Your task to perform on an android device: Search for "alienware area 51" on target, select the first entry, and add it to the cart. Image 0: 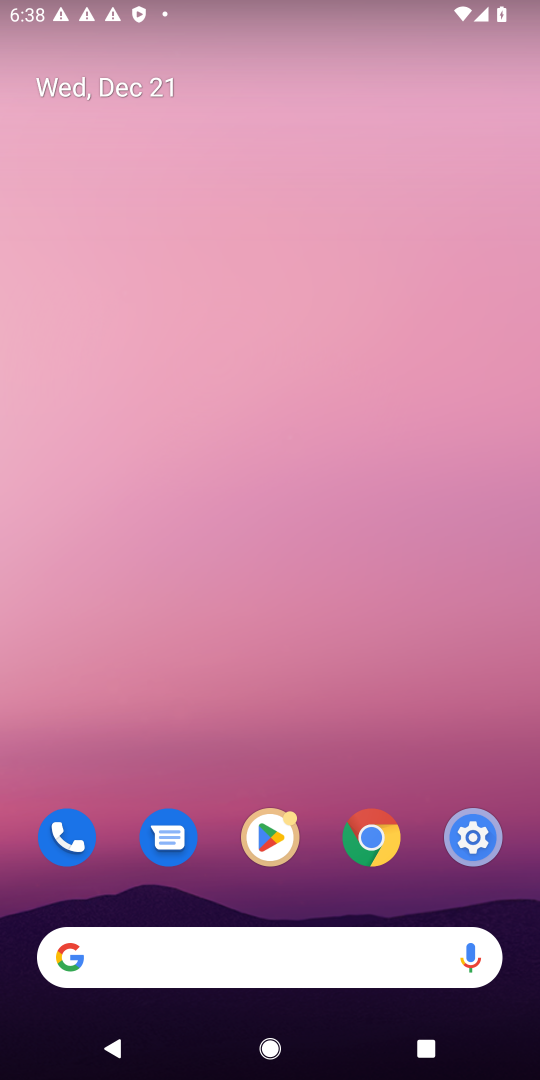
Step 0: drag from (156, 939) to (229, 361)
Your task to perform on an android device: Search for "alienware area 51" on target, select the first entry, and add it to the cart. Image 1: 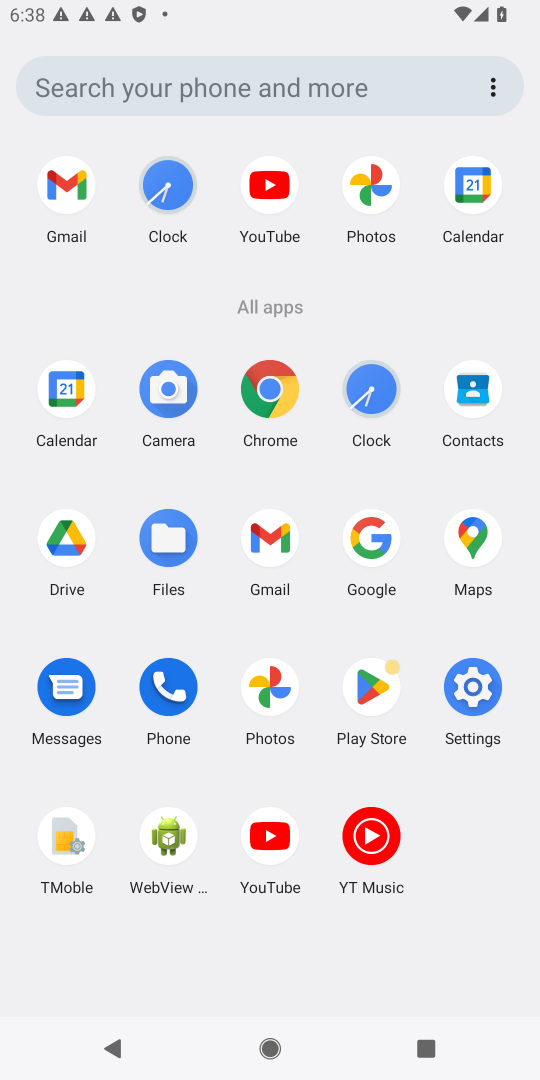
Step 1: click (371, 555)
Your task to perform on an android device: Search for "alienware area 51" on target, select the first entry, and add it to the cart. Image 2: 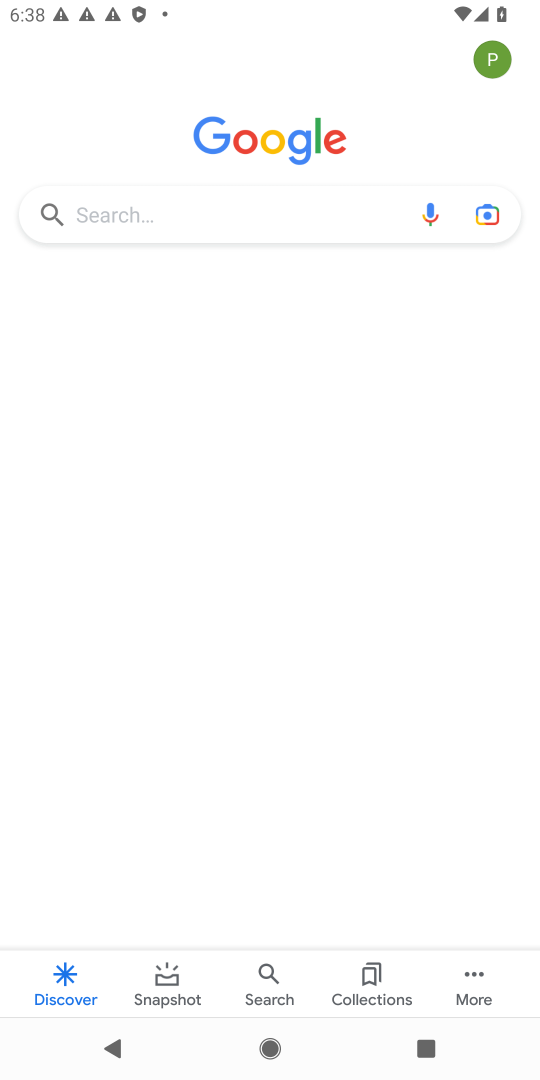
Step 2: click (151, 199)
Your task to perform on an android device: Search for "alienware area 51" on target, select the first entry, and add it to the cart. Image 3: 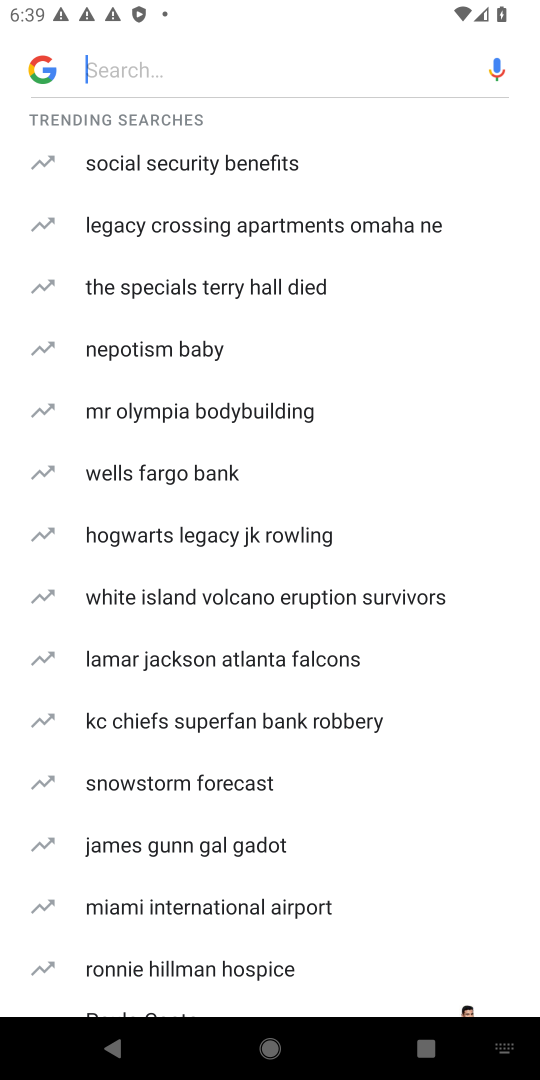
Step 3: type "target"
Your task to perform on an android device: Search for "alienware area 51" on target, select the first entry, and add it to the cart. Image 4: 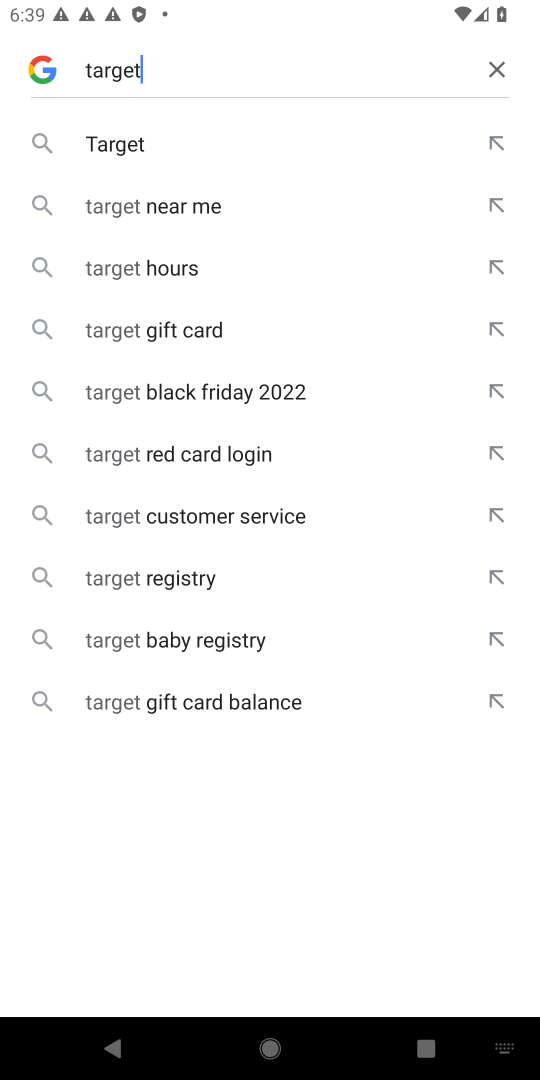
Step 4: click (114, 150)
Your task to perform on an android device: Search for "alienware area 51" on target, select the first entry, and add it to the cart. Image 5: 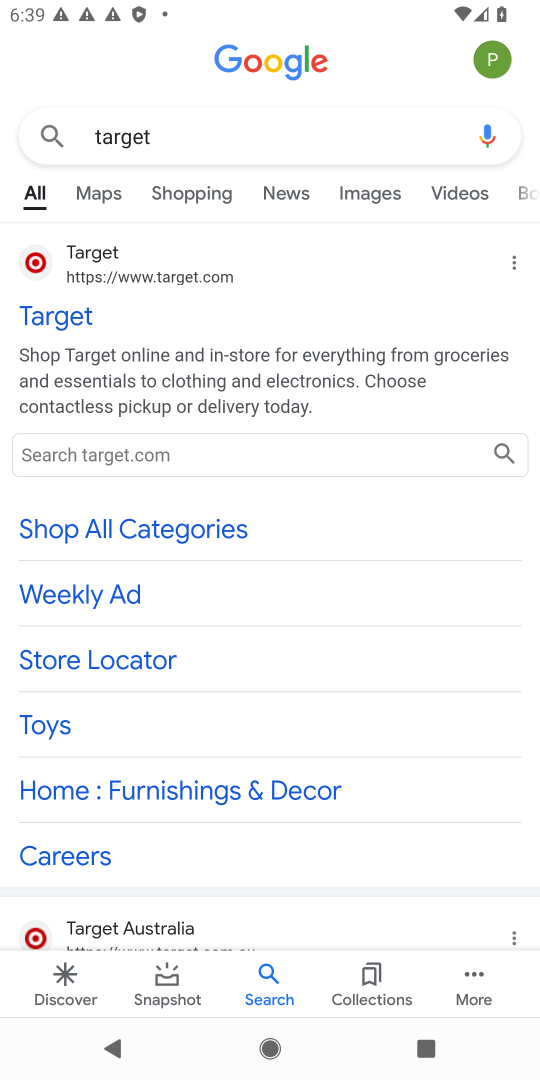
Step 5: click (42, 311)
Your task to perform on an android device: Search for "alienware area 51" on target, select the first entry, and add it to the cart. Image 6: 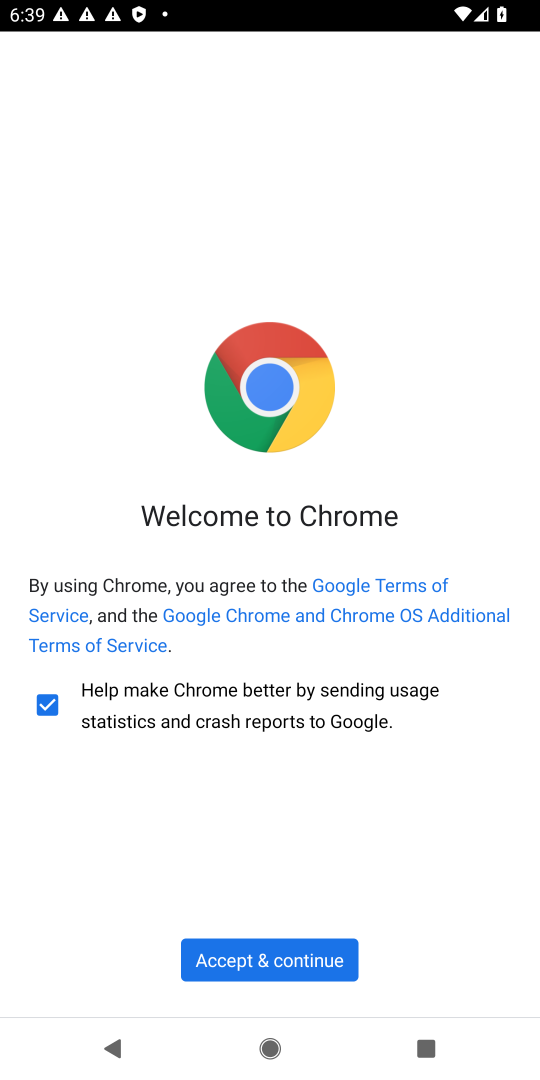
Step 6: click (242, 954)
Your task to perform on an android device: Search for "alienware area 51" on target, select the first entry, and add it to the cart. Image 7: 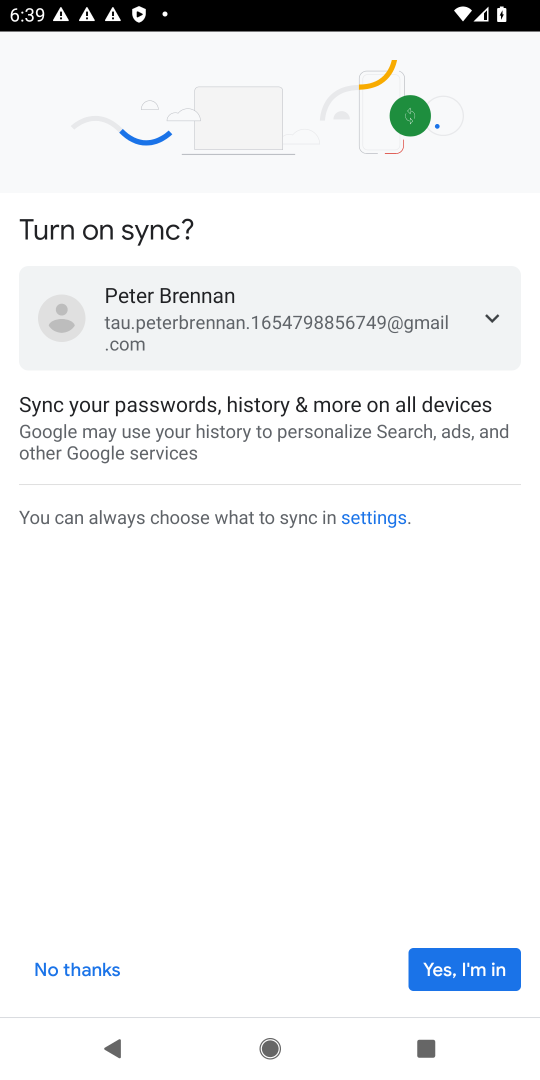
Step 7: click (454, 966)
Your task to perform on an android device: Search for "alienware area 51" on target, select the first entry, and add it to the cart. Image 8: 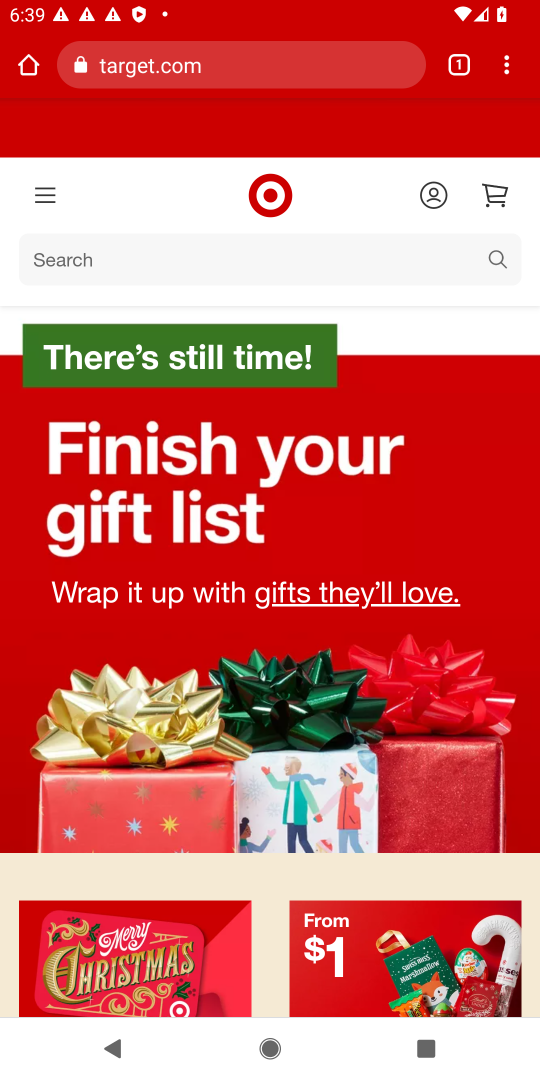
Step 8: click (72, 254)
Your task to perform on an android device: Search for "alienware area 51" on target, select the first entry, and add it to the cart. Image 9: 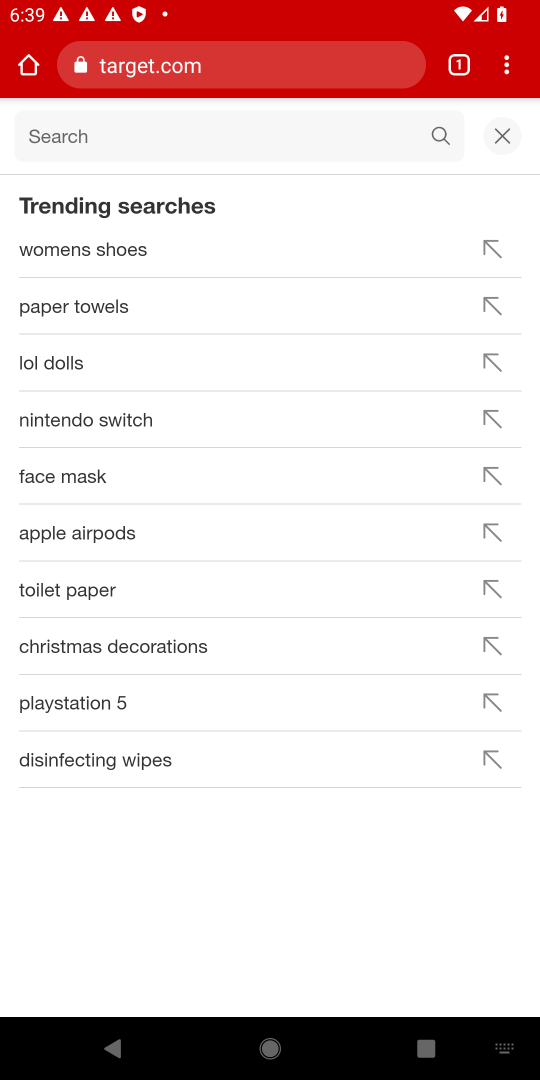
Step 9: type "alienware area 51"
Your task to perform on an android device: Search for "alienware area 51" on target, select the first entry, and add it to the cart. Image 10: 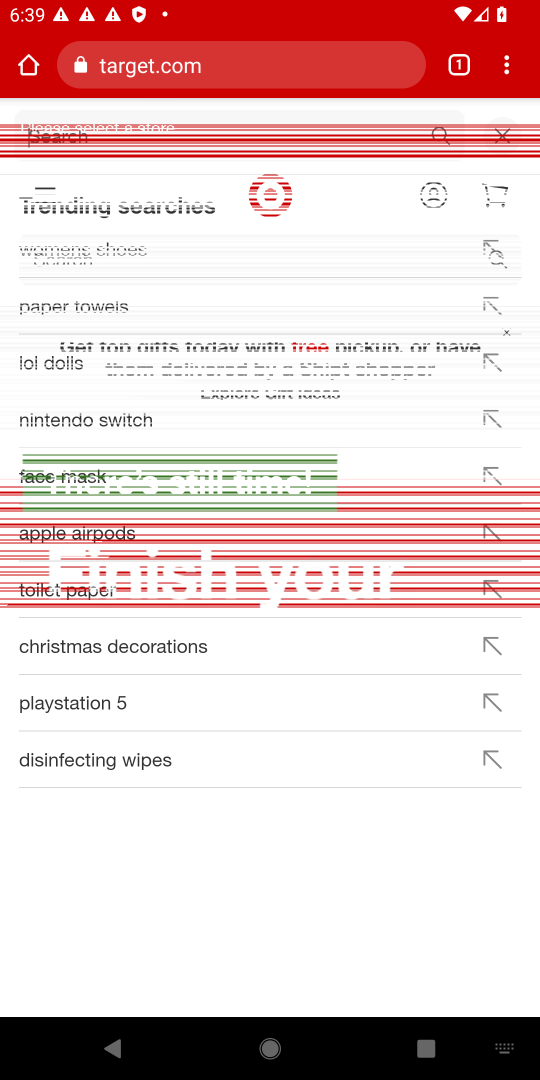
Step 10: click (444, 133)
Your task to perform on an android device: Search for "alienware area 51" on target, select the first entry, and add it to the cart. Image 11: 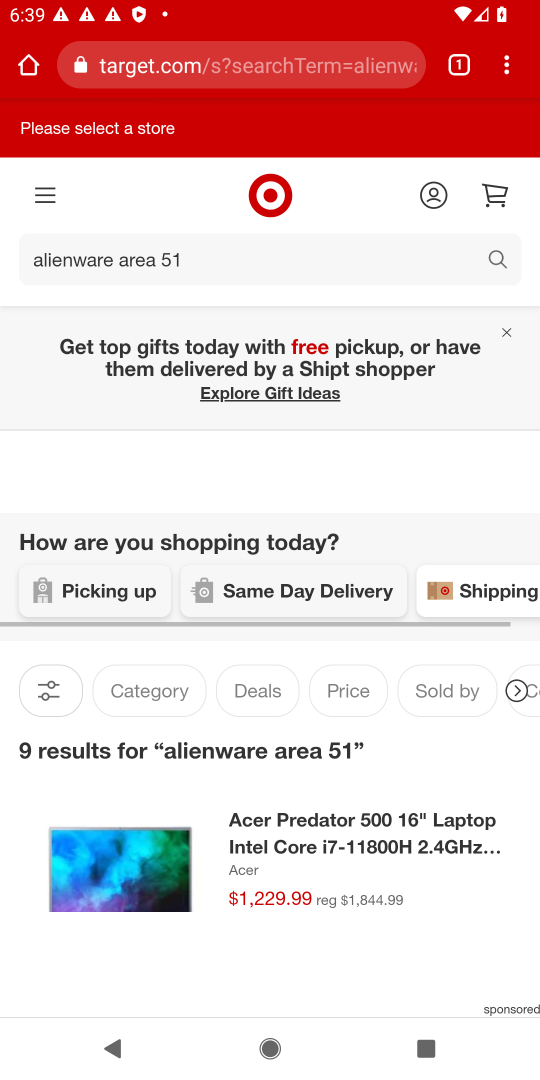
Step 11: drag from (303, 848) to (318, 480)
Your task to perform on an android device: Search for "alienware area 51" on target, select the first entry, and add it to the cart. Image 12: 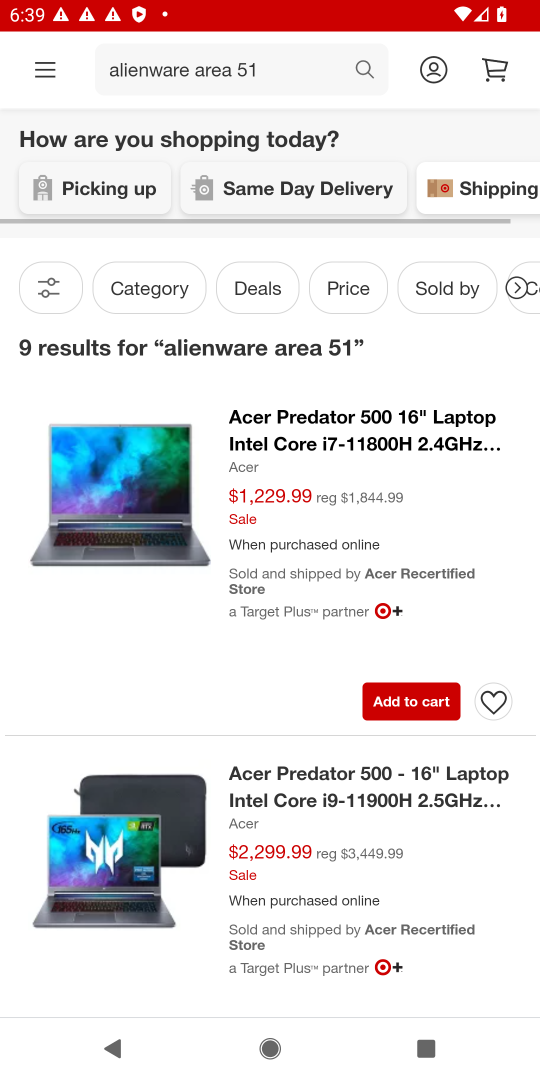
Step 12: click (388, 702)
Your task to perform on an android device: Search for "alienware area 51" on target, select the first entry, and add it to the cart. Image 13: 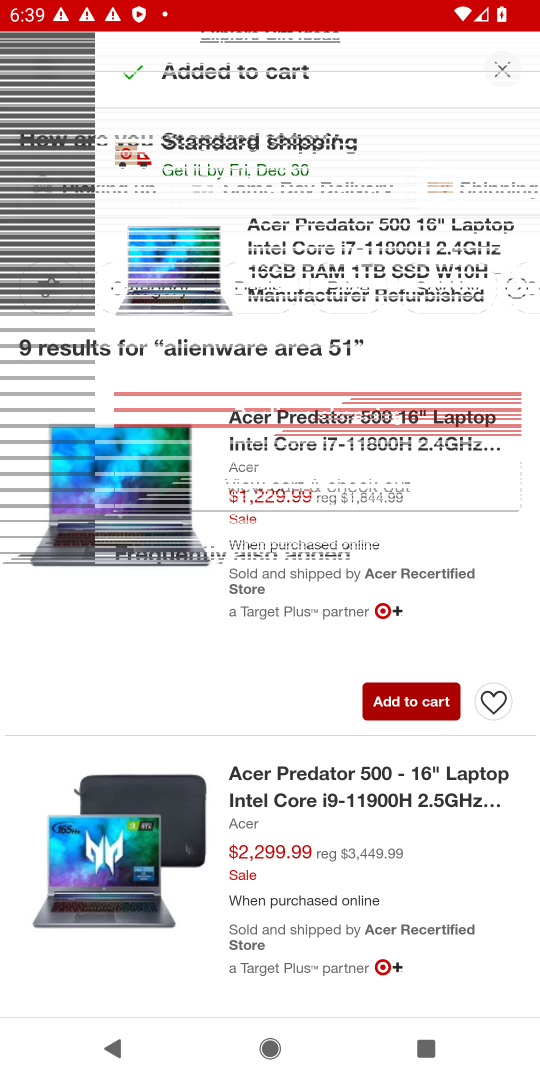
Step 13: task complete